Your task to perform on an android device: When is my next appointment? Image 0: 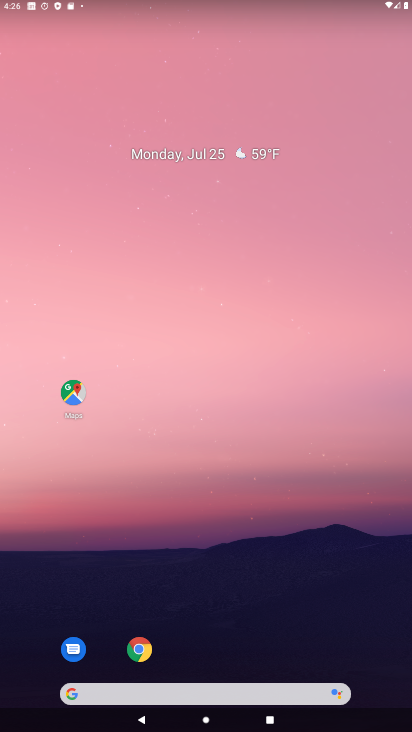
Step 0: drag from (222, 645) to (175, 130)
Your task to perform on an android device: When is my next appointment? Image 1: 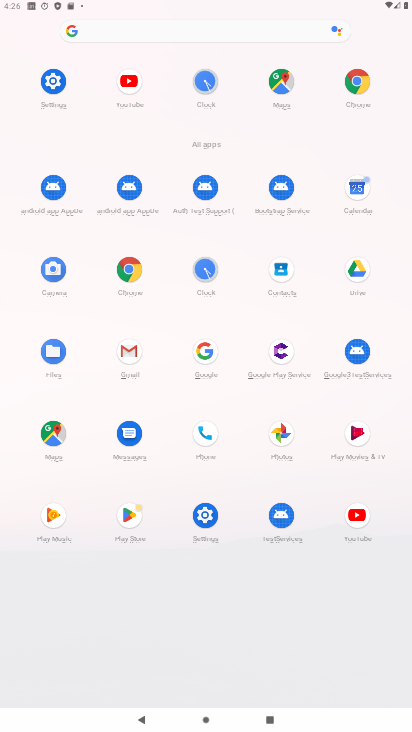
Step 1: click (361, 179)
Your task to perform on an android device: When is my next appointment? Image 2: 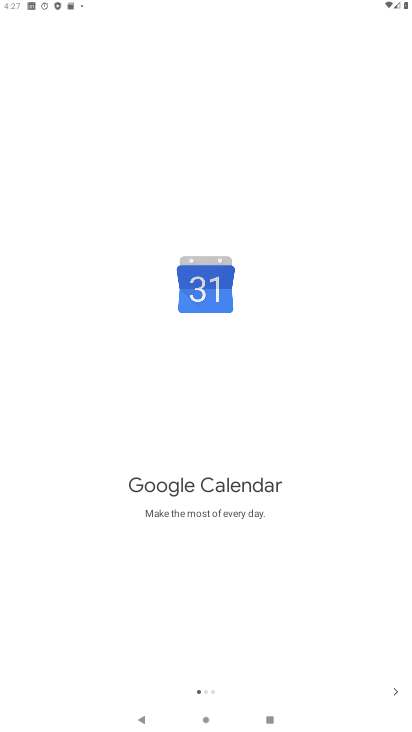
Step 2: click (394, 686)
Your task to perform on an android device: When is my next appointment? Image 3: 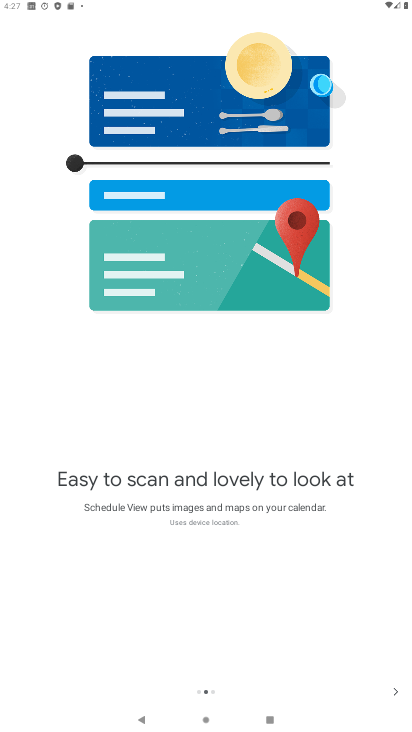
Step 3: click (394, 686)
Your task to perform on an android device: When is my next appointment? Image 4: 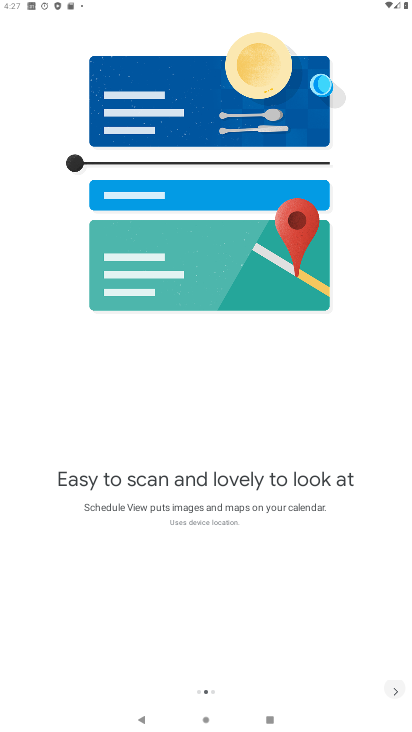
Step 4: click (394, 686)
Your task to perform on an android device: When is my next appointment? Image 5: 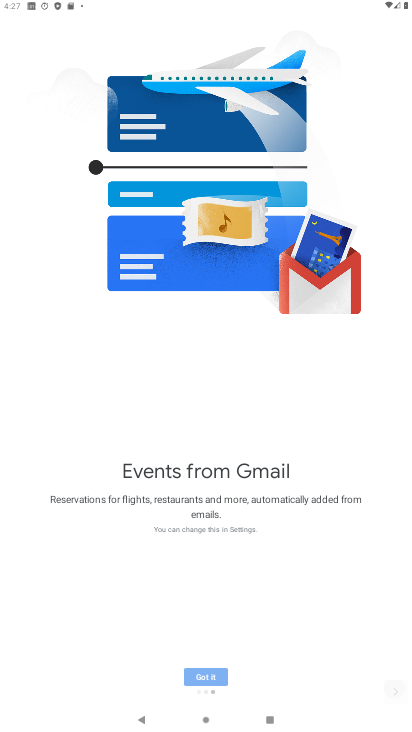
Step 5: click (394, 686)
Your task to perform on an android device: When is my next appointment? Image 6: 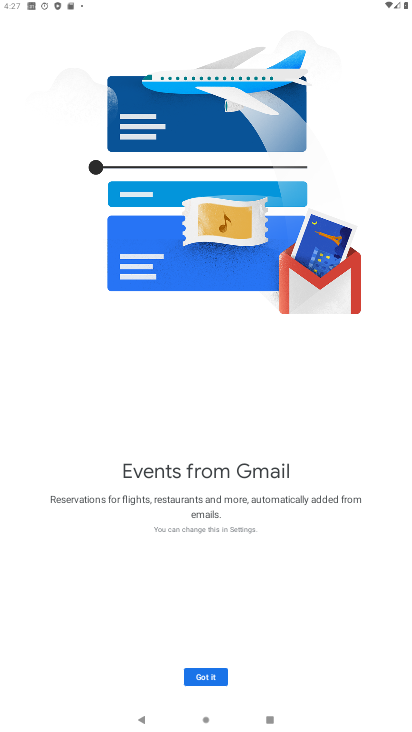
Step 6: click (394, 686)
Your task to perform on an android device: When is my next appointment? Image 7: 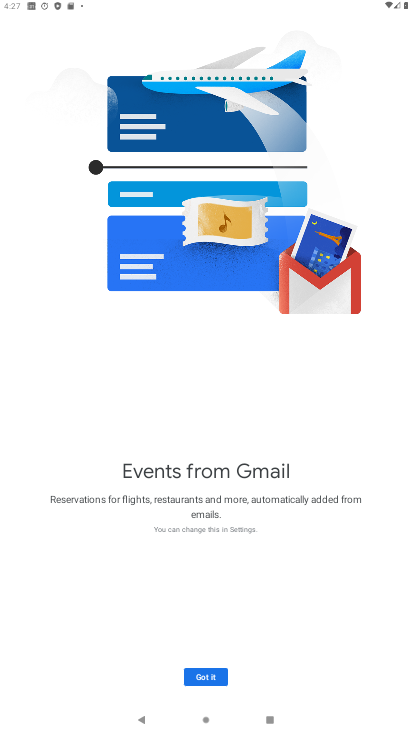
Step 7: click (208, 679)
Your task to perform on an android device: When is my next appointment? Image 8: 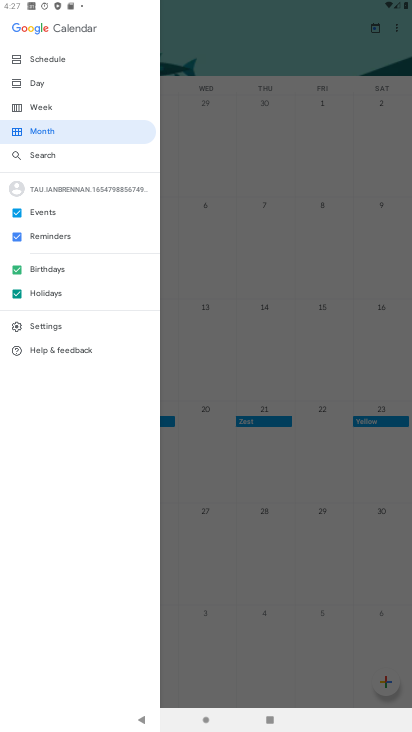
Step 8: click (115, 66)
Your task to perform on an android device: When is my next appointment? Image 9: 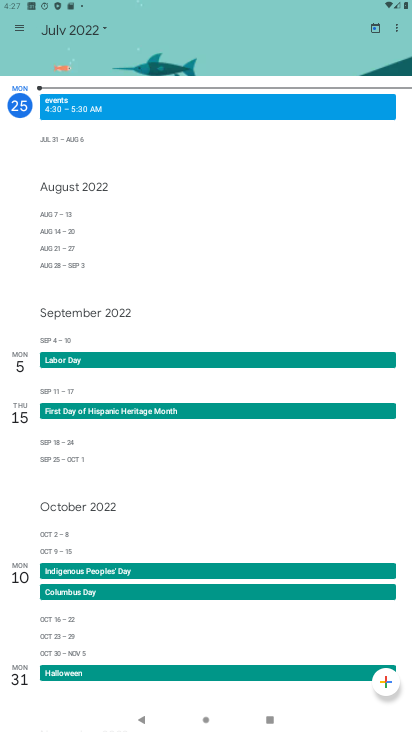
Step 9: task complete